Your task to perform on an android device: check out phone information Image 0: 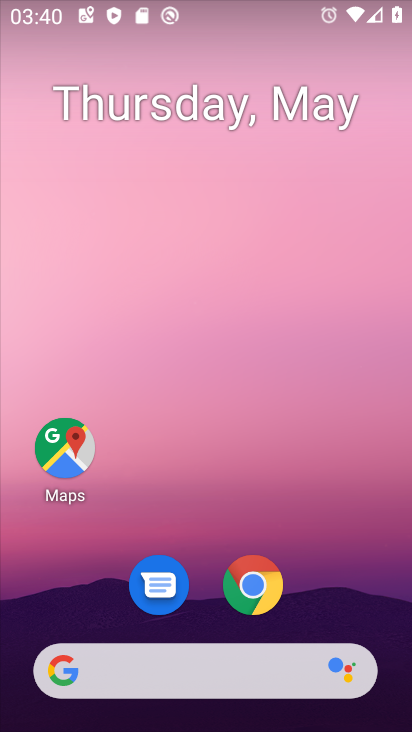
Step 0: drag from (318, 533) to (302, 34)
Your task to perform on an android device: check out phone information Image 1: 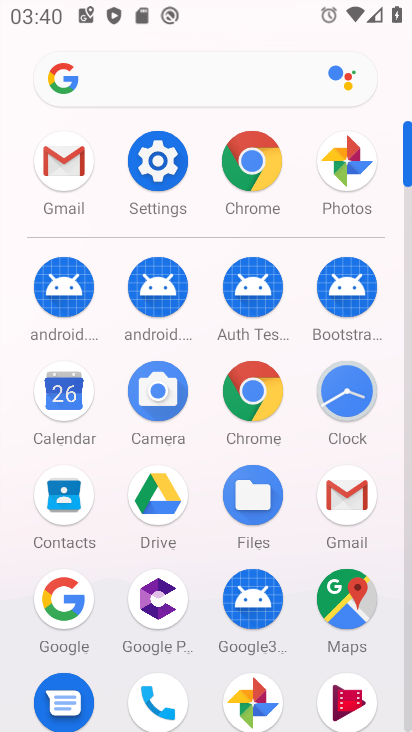
Step 1: click (160, 699)
Your task to perform on an android device: check out phone information Image 2: 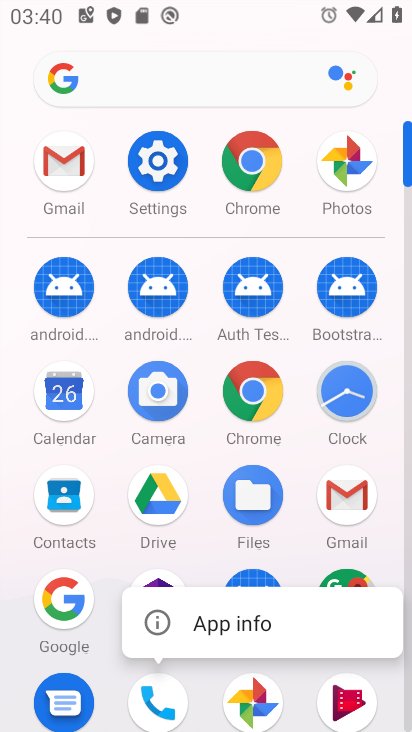
Step 2: click (157, 686)
Your task to perform on an android device: check out phone information Image 3: 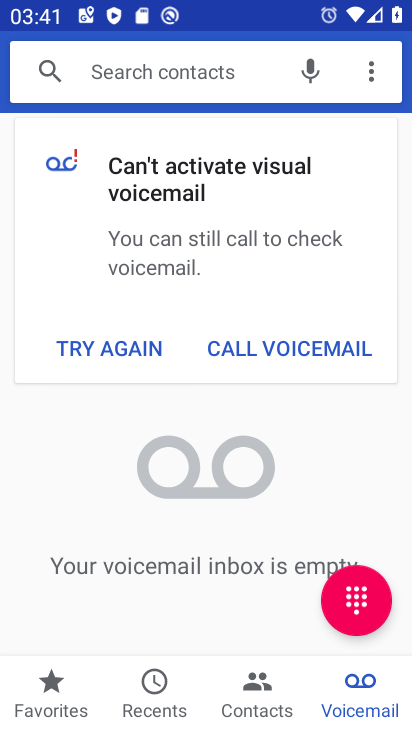
Step 3: click (367, 67)
Your task to perform on an android device: check out phone information Image 4: 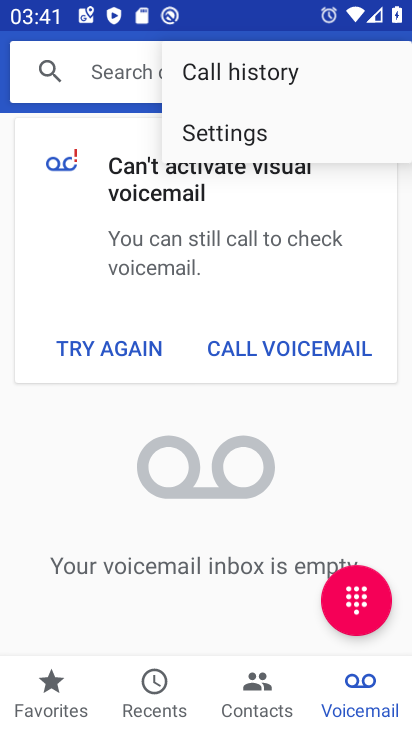
Step 4: click (313, 130)
Your task to perform on an android device: check out phone information Image 5: 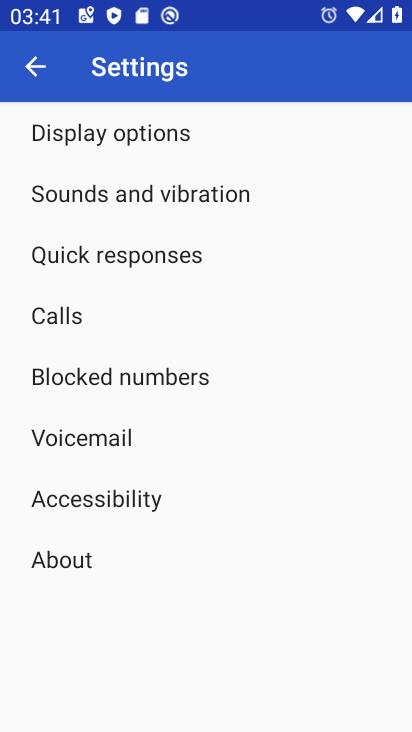
Step 5: click (91, 557)
Your task to perform on an android device: check out phone information Image 6: 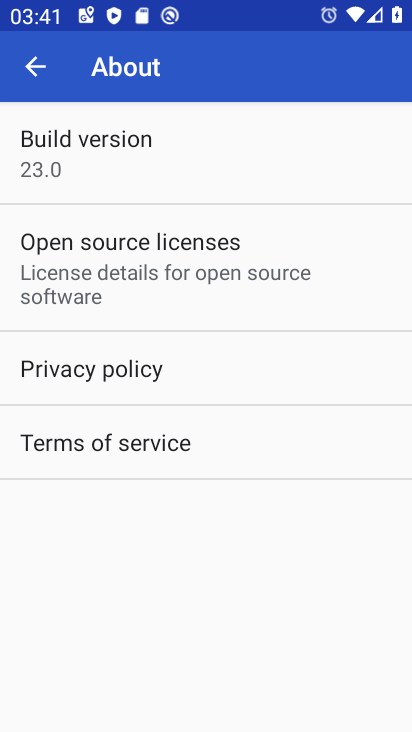
Step 6: task complete